Your task to perform on an android device: turn on the 12-hour format for clock Image 0: 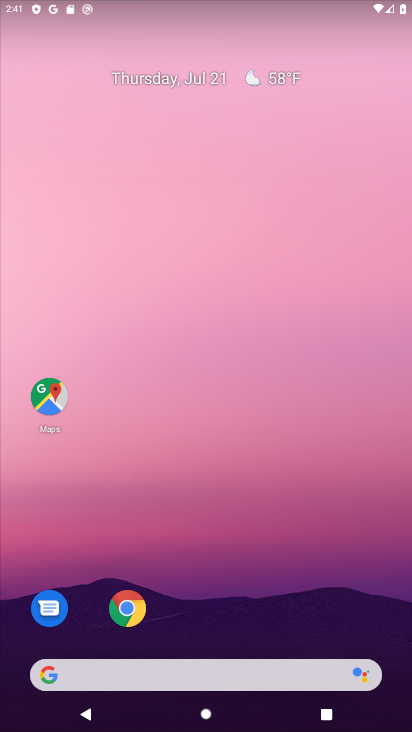
Step 0: press home button
Your task to perform on an android device: turn on the 12-hour format for clock Image 1: 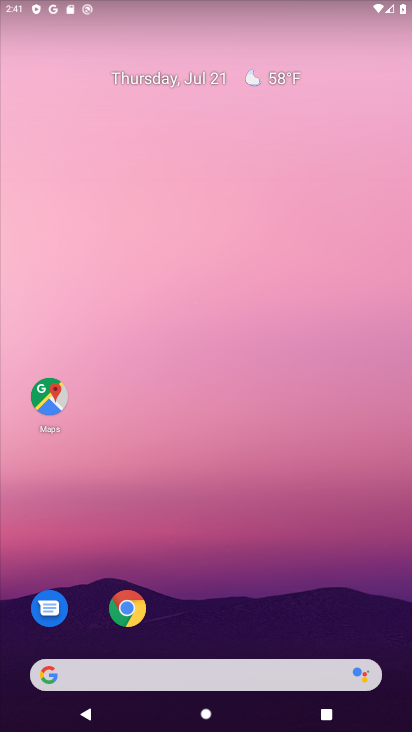
Step 1: drag from (204, 632) to (230, 40)
Your task to perform on an android device: turn on the 12-hour format for clock Image 2: 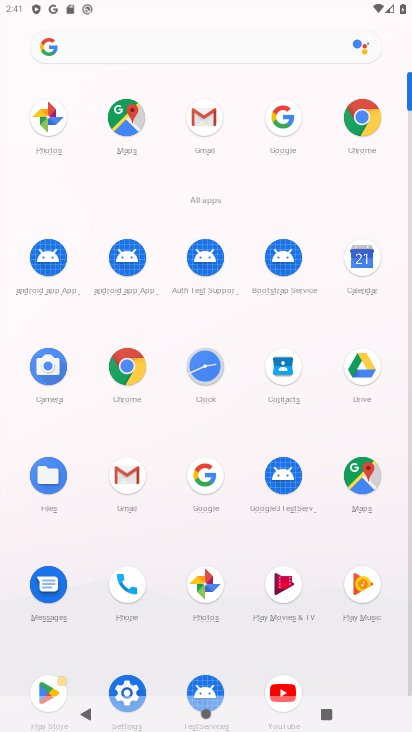
Step 2: click (199, 358)
Your task to perform on an android device: turn on the 12-hour format for clock Image 3: 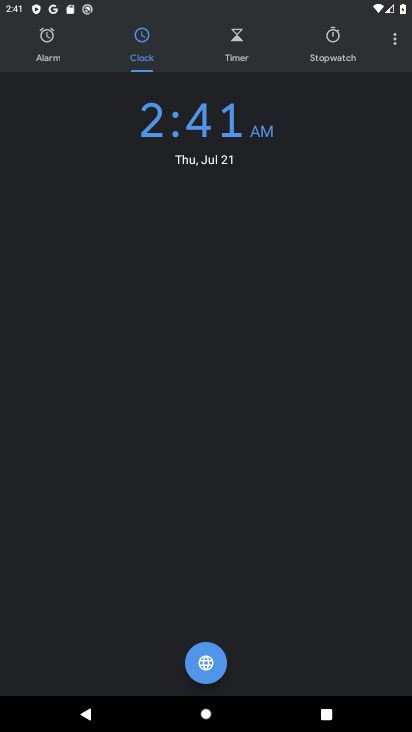
Step 3: click (386, 37)
Your task to perform on an android device: turn on the 12-hour format for clock Image 4: 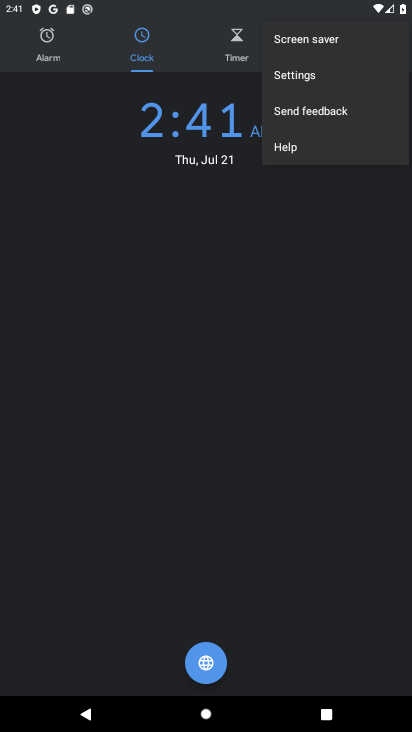
Step 4: click (309, 74)
Your task to perform on an android device: turn on the 12-hour format for clock Image 5: 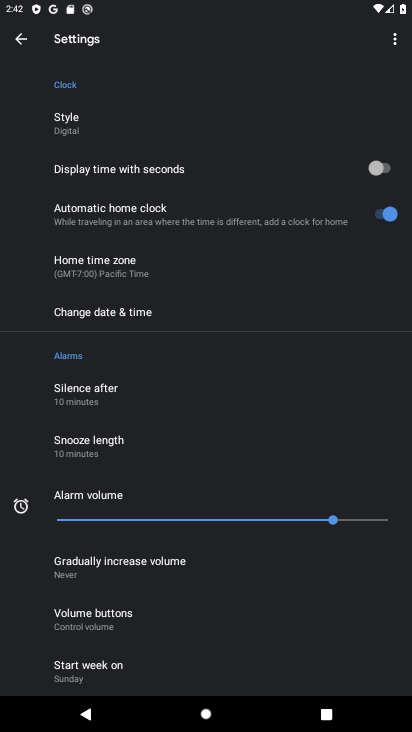
Step 5: click (161, 320)
Your task to perform on an android device: turn on the 12-hour format for clock Image 6: 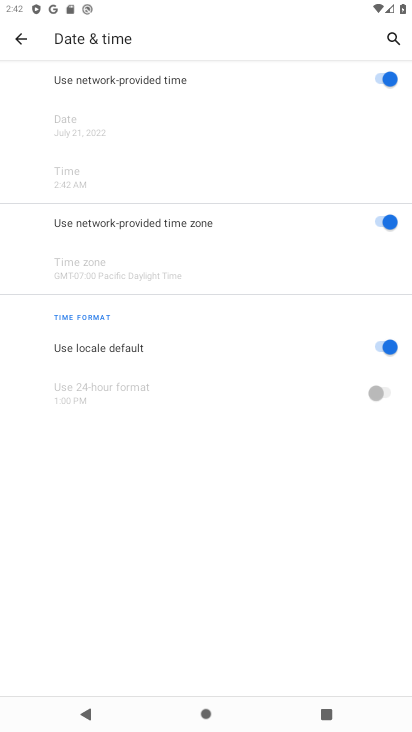
Step 6: task complete